Your task to perform on an android device: open chrome privacy settings Image 0: 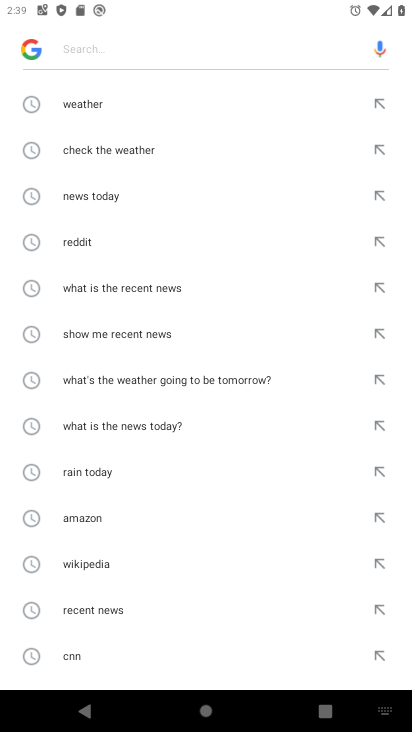
Step 0: click (268, 421)
Your task to perform on an android device: open chrome privacy settings Image 1: 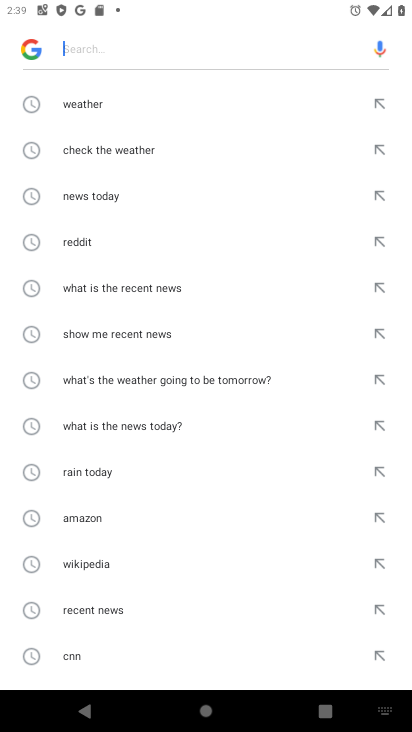
Step 1: press home button
Your task to perform on an android device: open chrome privacy settings Image 2: 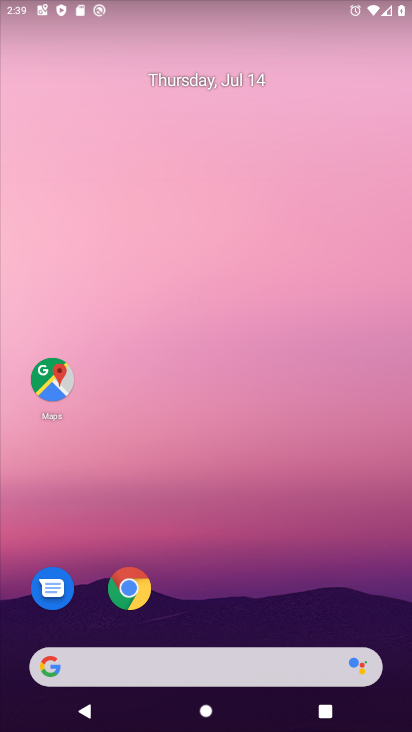
Step 2: drag from (245, 620) to (240, 225)
Your task to perform on an android device: open chrome privacy settings Image 3: 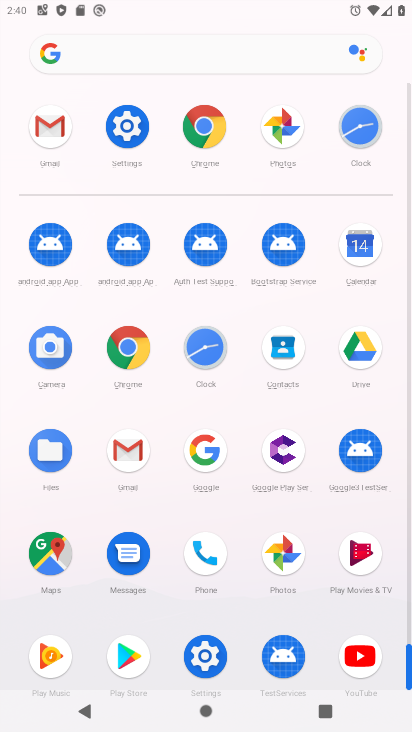
Step 3: drag from (133, 117) to (195, 174)
Your task to perform on an android device: open chrome privacy settings Image 4: 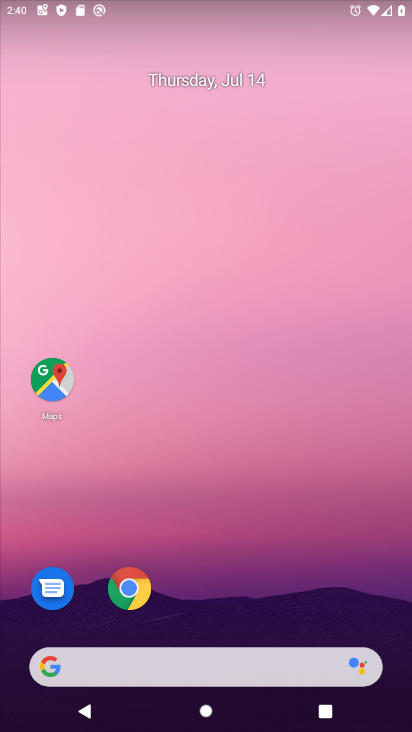
Step 4: drag from (192, 563) to (234, 233)
Your task to perform on an android device: open chrome privacy settings Image 5: 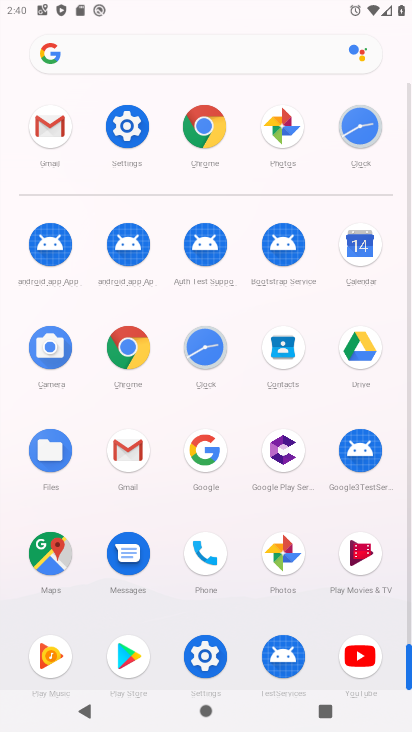
Step 5: click (196, 123)
Your task to perform on an android device: open chrome privacy settings Image 6: 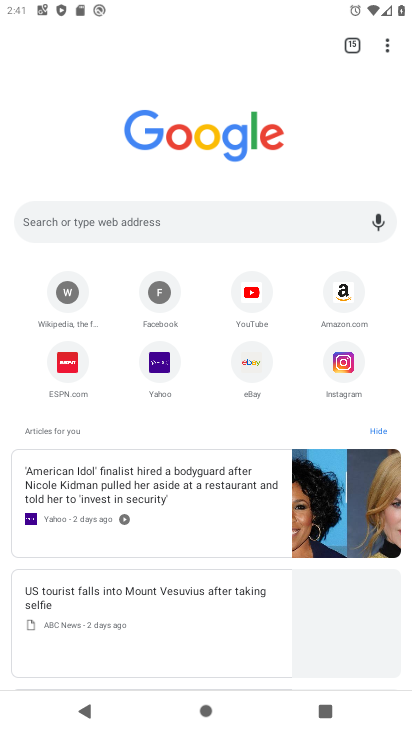
Step 6: click (387, 47)
Your task to perform on an android device: open chrome privacy settings Image 7: 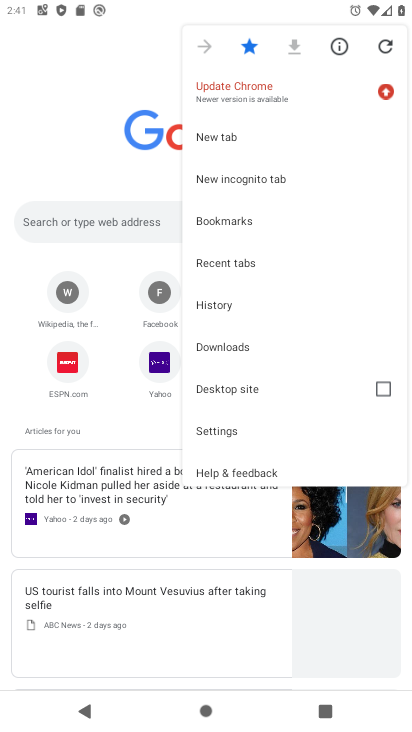
Step 7: click (249, 420)
Your task to perform on an android device: open chrome privacy settings Image 8: 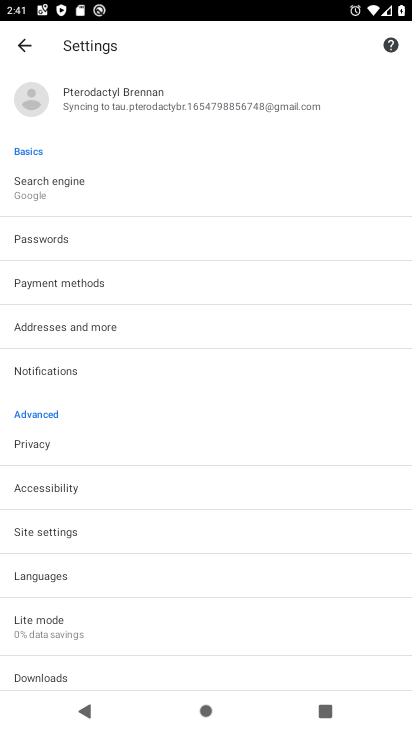
Step 8: click (51, 438)
Your task to perform on an android device: open chrome privacy settings Image 9: 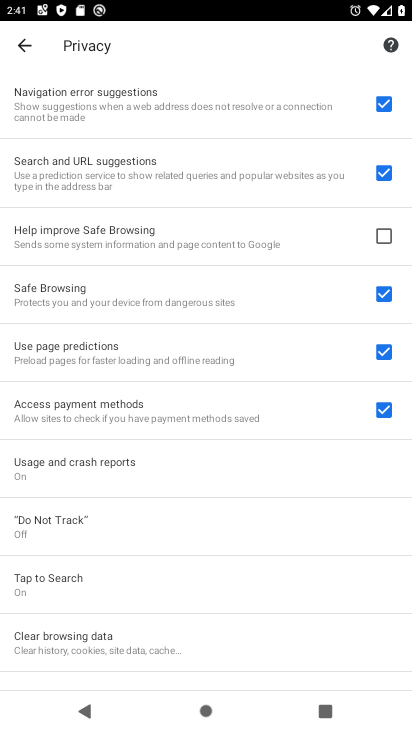
Step 9: task complete